Your task to perform on an android device: turn notification dots off Image 0: 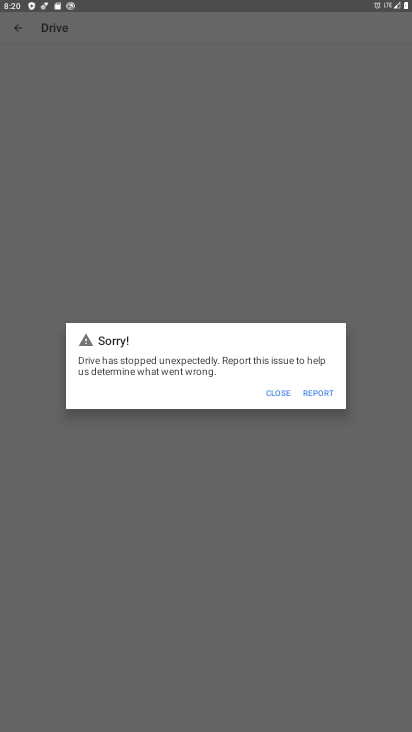
Step 0: press home button
Your task to perform on an android device: turn notification dots off Image 1: 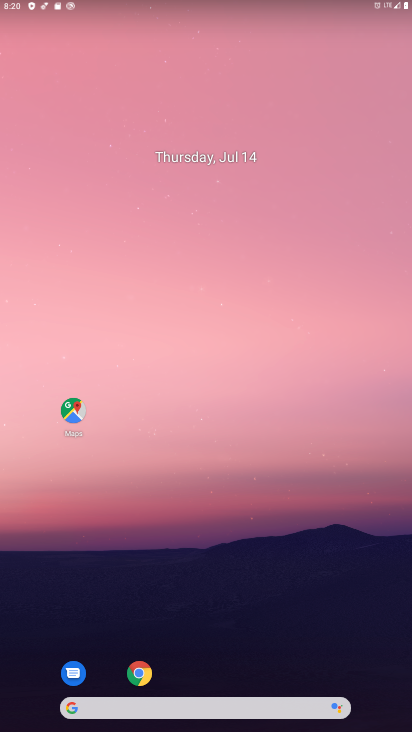
Step 1: drag from (168, 704) to (207, 133)
Your task to perform on an android device: turn notification dots off Image 2: 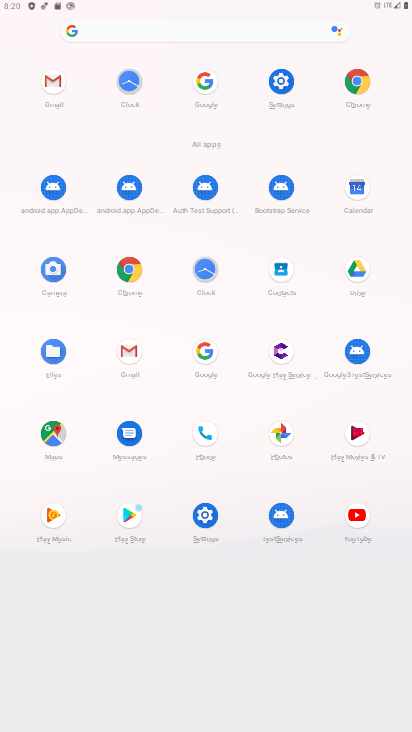
Step 2: click (282, 80)
Your task to perform on an android device: turn notification dots off Image 3: 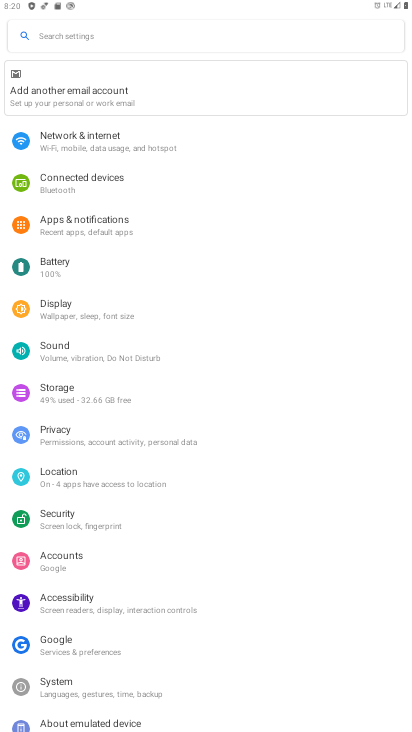
Step 3: click (88, 228)
Your task to perform on an android device: turn notification dots off Image 4: 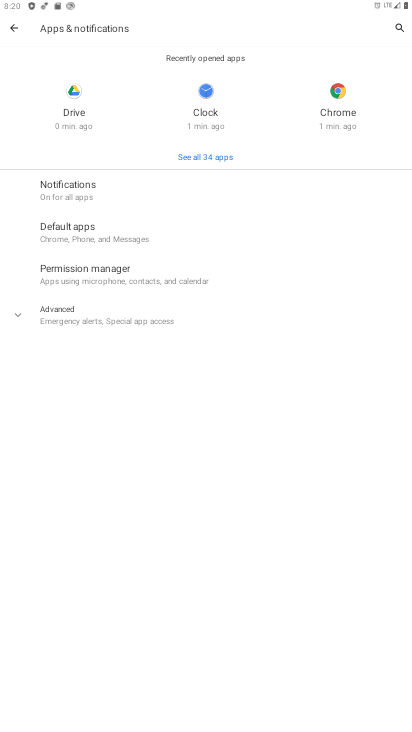
Step 4: click (83, 317)
Your task to perform on an android device: turn notification dots off Image 5: 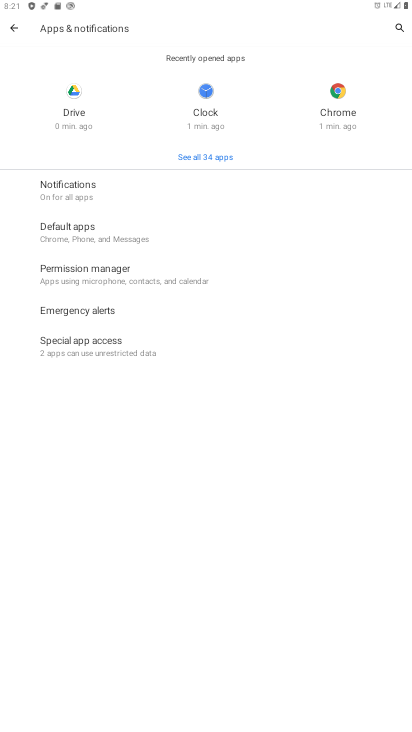
Step 5: click (79, 190)
Your task to perform on an android device: turn notification dots off Image 6: 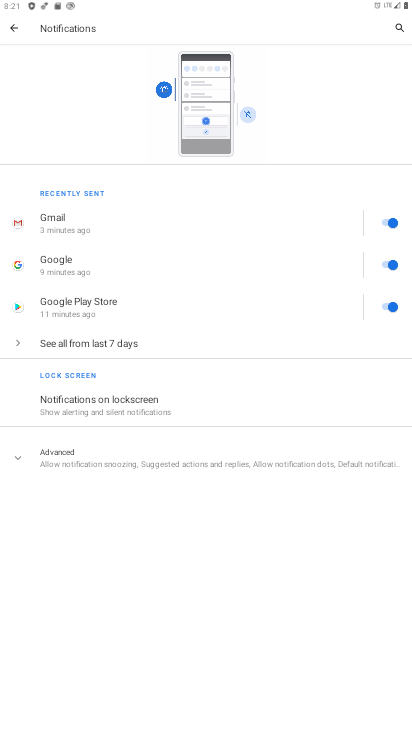
Step 6: click (99, 463)
Your task to perform on an android device: turn notification dots off Image 7: 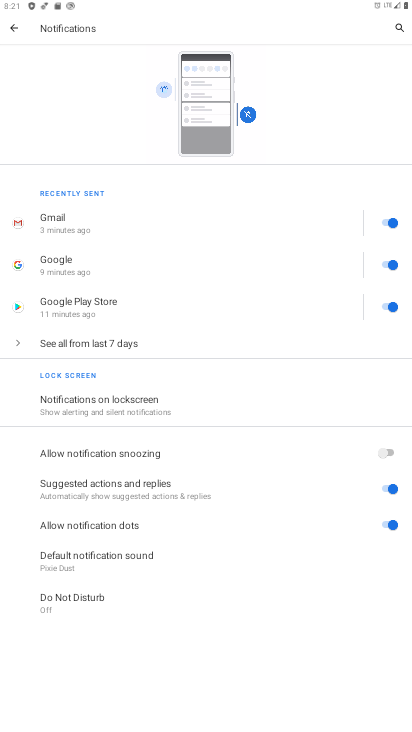
Step 7: click (397, 526)
Your task to perform on an android device: turn notification dots off Image 8: 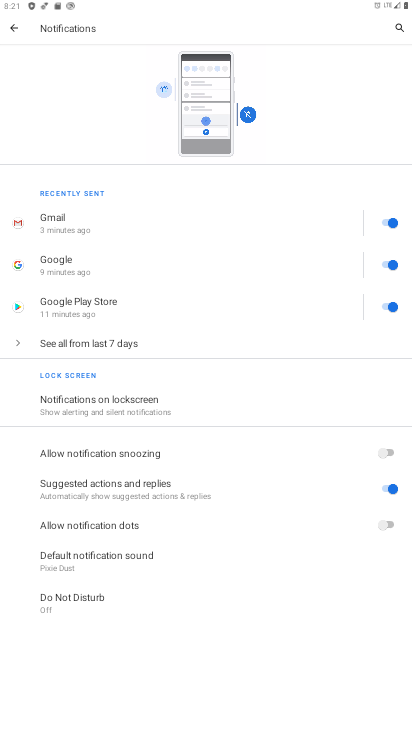
Step 8: task complete